Your task to perform on an android device: Open display settings Image 0: 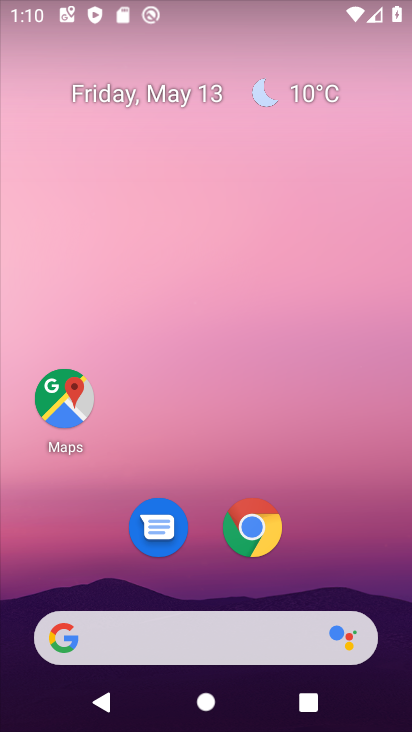
Step 0: drag from (167, 612) to (277, 243)
Your task to perform on an android device: Open display settings Image 1: 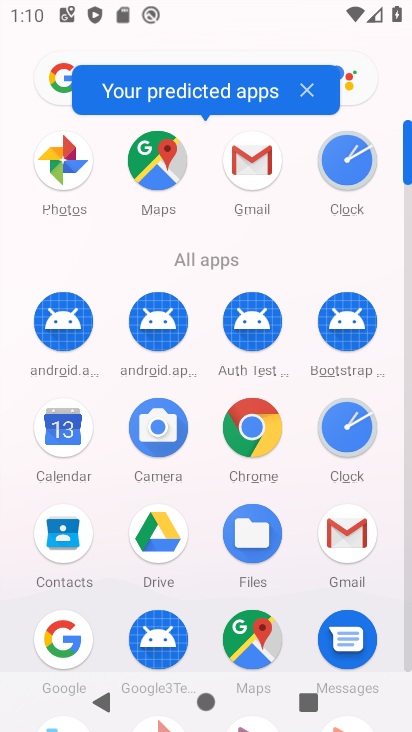
Step 1: drag from (163, 620) to (238, 411)
Your task to perform on an android device: Open display settings Image 2: 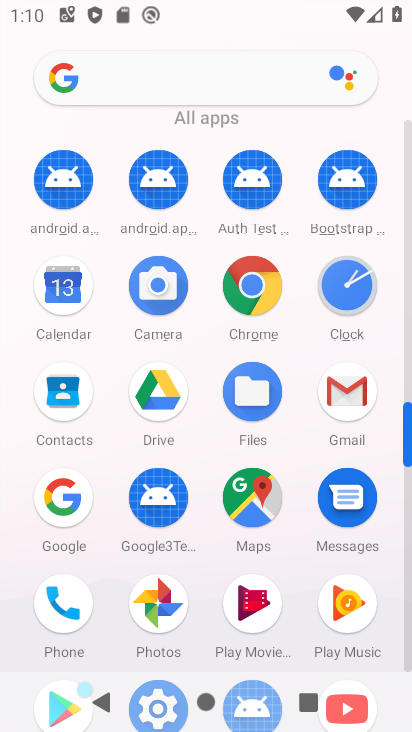
Step 2: click (163, 699)
Your task to perform on an android device: Open display settings Image 3: 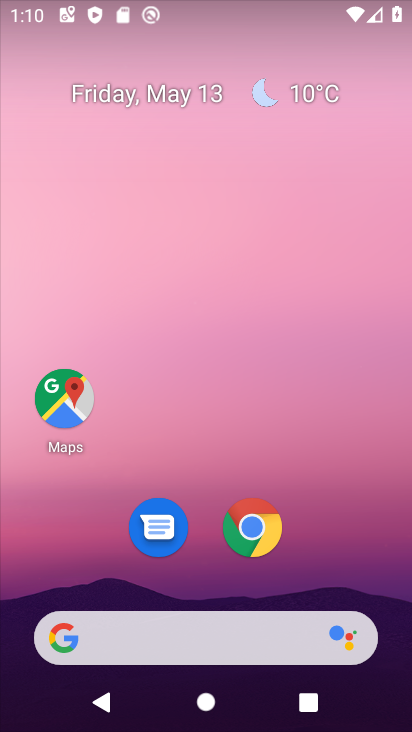
Step 3: drag from (177, 613) to (273, 210)
Your task to perform on an android device: Open display settings Image 4: 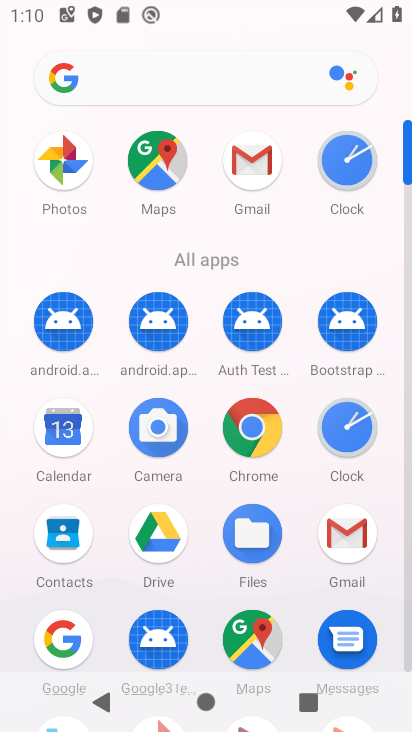
Step 4: drag from (130, 615) to (190, 332)
Your task to perform on an android device: Open display settings Image 5: 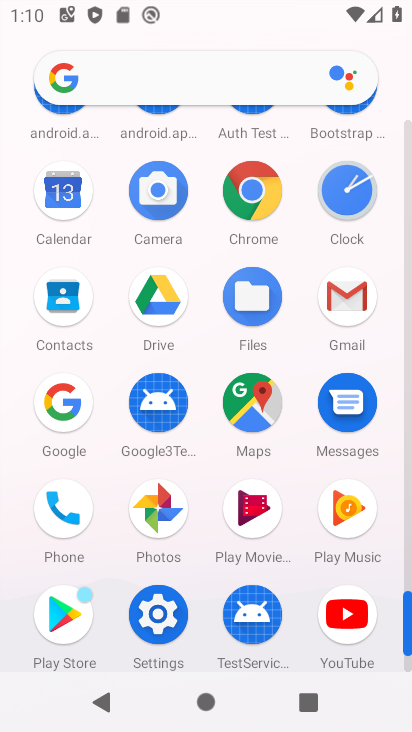
Step 5: click (161, 618)
Your task to perform on an android device: Open display settings Image 6: 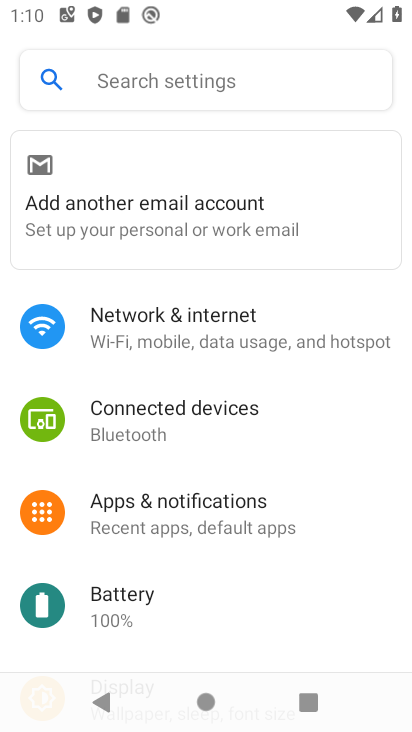
Step 6: drag from (159, 625) to (236, 337)
Your task to perform on an android device: Open display settings Image 7: 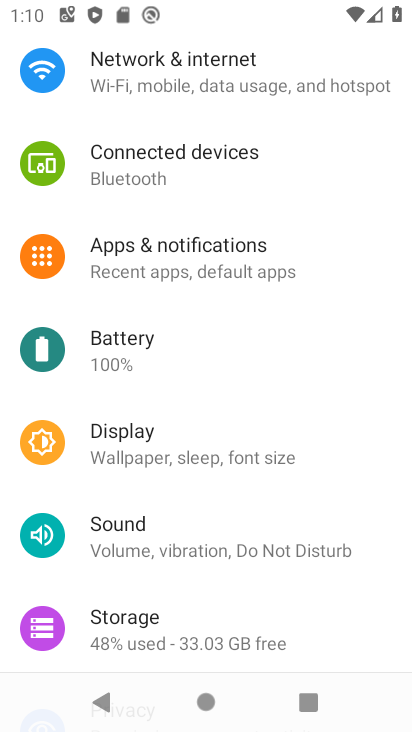
Step 7: click (203, 453)
Your task to perform on an android device: Open display settings Image 8: 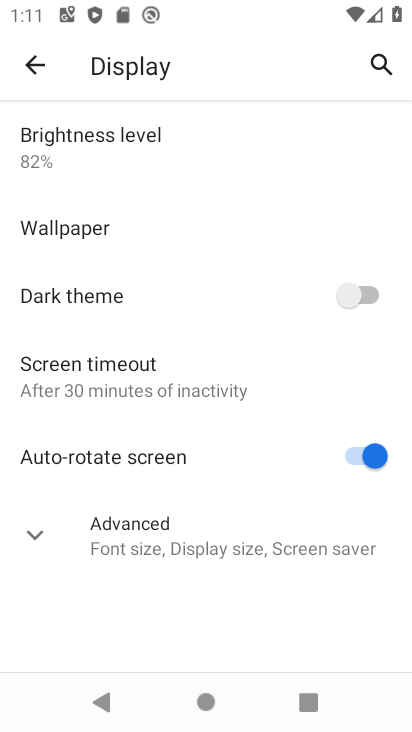
Step 8: task complete